Your task to perform on an android device: turn on showing notifications on the lock screen Image 0: 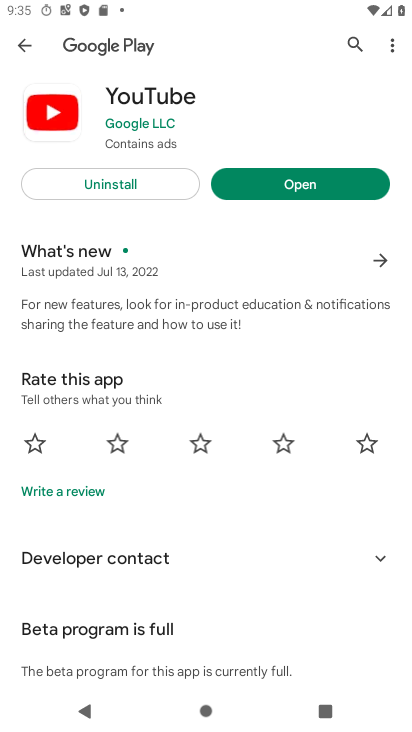
Step 0: press home button
Your task to perform on an android device: turn on showing notifications on the lock screen Image 1: 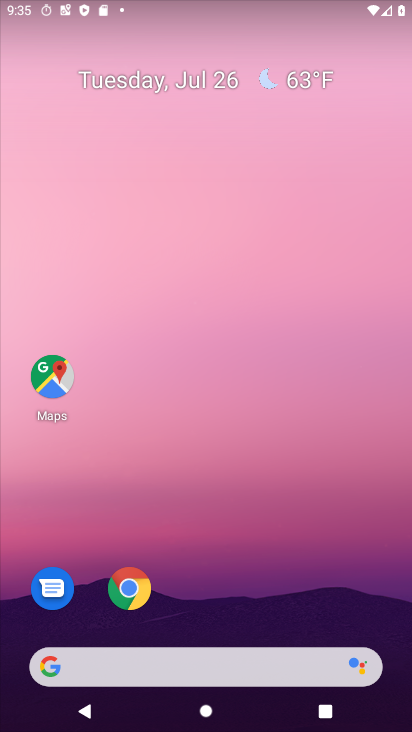
Step 1: drag from (186, 622) to (186, 73)
Your task to perform on an android device: turn on showing notifications on the lock screen Image 2: 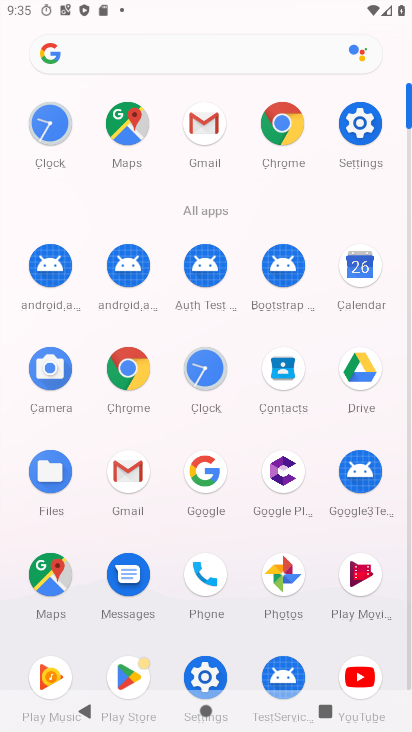
Step 2: click (371, 127)
Your task to perform on an android device: turn on showing notifications on the lock screen Image 3: 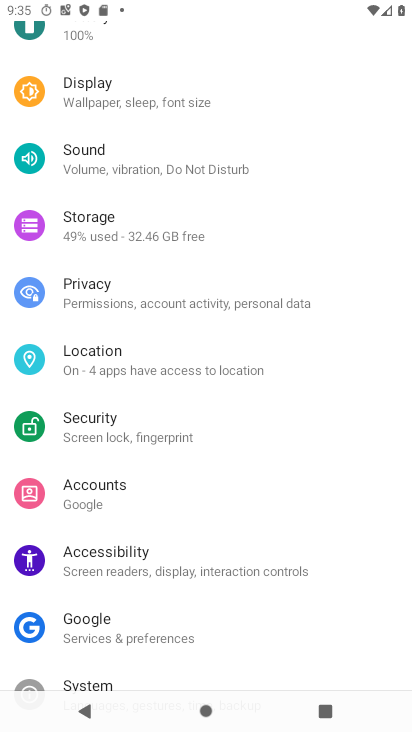
Step 3: drag from (216, 124) to (254, 660)
Your task to perform on an android device: turn on showing notifications on the lock screen Image 4: 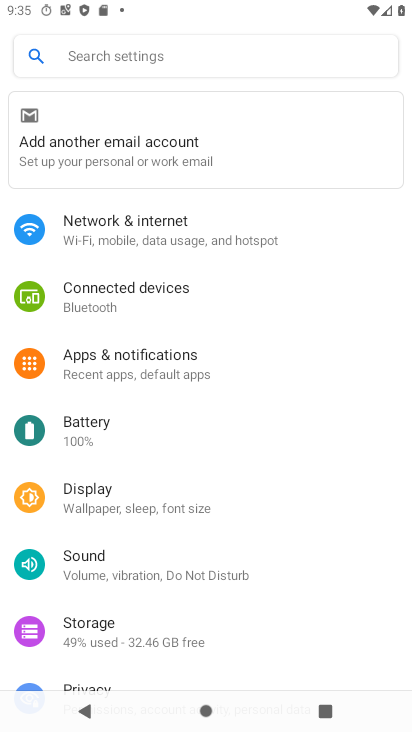
Step 4: click (172, 356)
Your task to perform on an android device: turn on showing notifications on the lock screen Image 5: 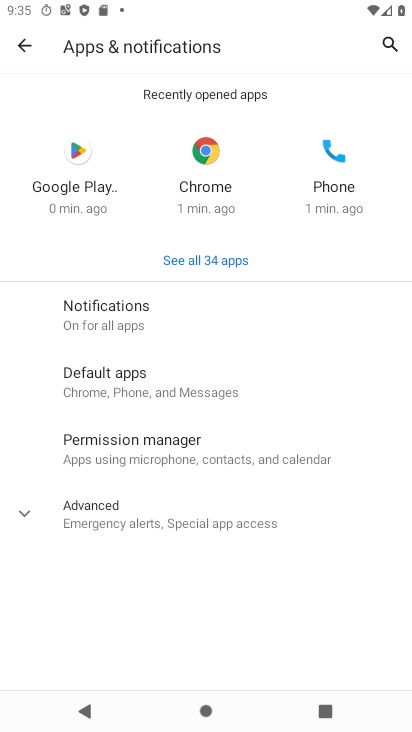
Step 5: click (170, 310)
Your task to perform on an android device: turn on showing notifications on the lock screen Image 6: 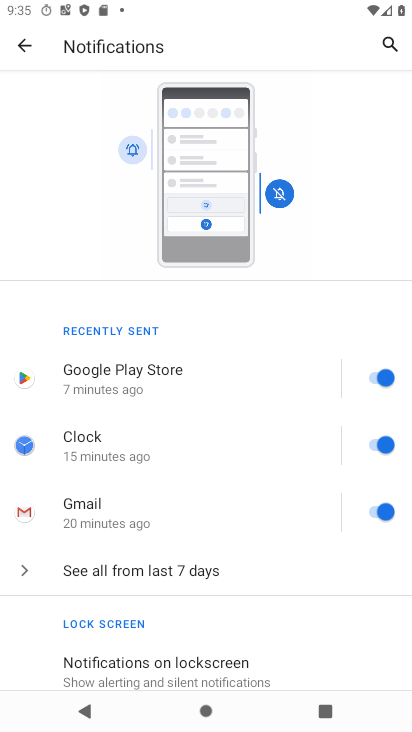
Step 6: click (183, 666)
Your task to perform on an android device: turn on showing notifications on the lock screen Image 7: 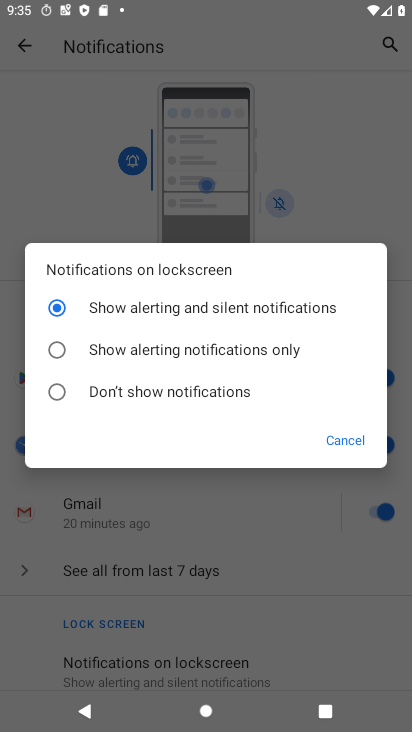
Step 7: task complete